Your task to perform on an android device: Open Google Maps Image 0: 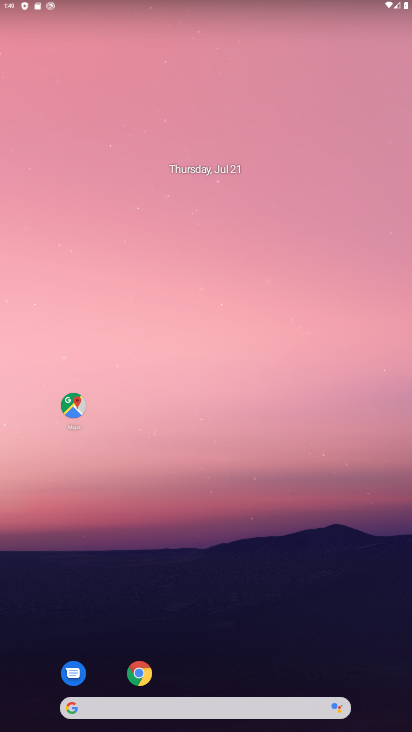
Step 0: click (73, 406)
Your task to perform on an android device: Open Google Maps Image 1: 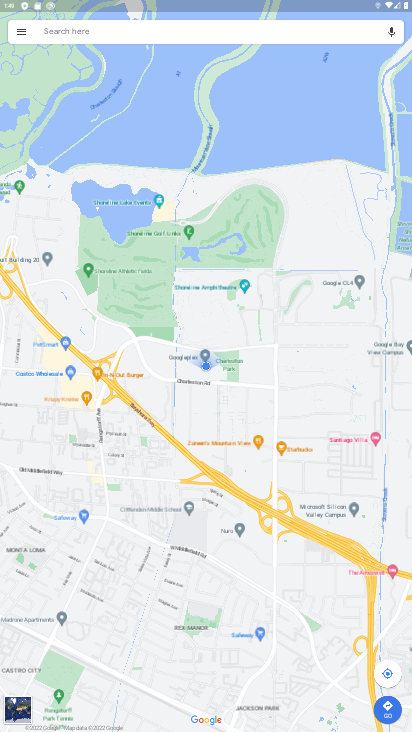
Step 1: task complete